Your task to perform on an android device: change your default location settings in chrome Image 0: 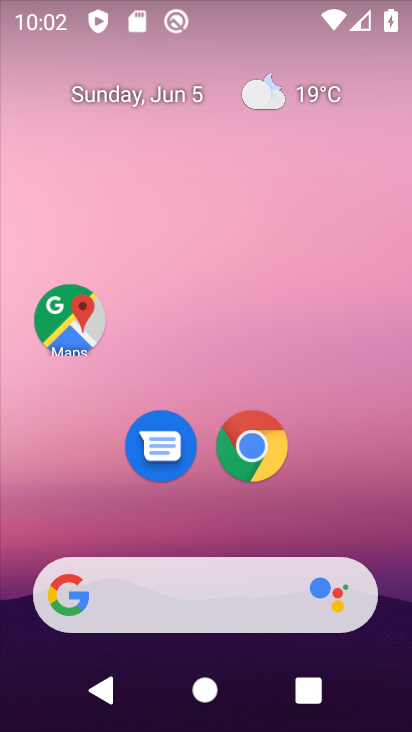
Step 0: click (243, 452)
Your task to perform on an android device: change your default location settings in chrome Image 1: 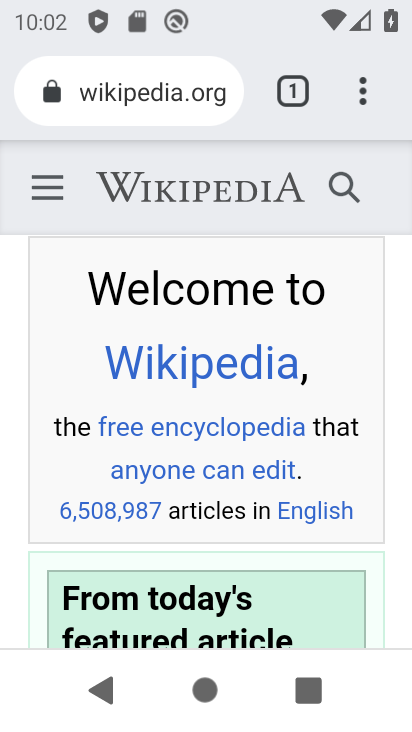
Step 1: click (362, 82)
Your task to perform on an android device: change your default location settings in chrome Image 2: 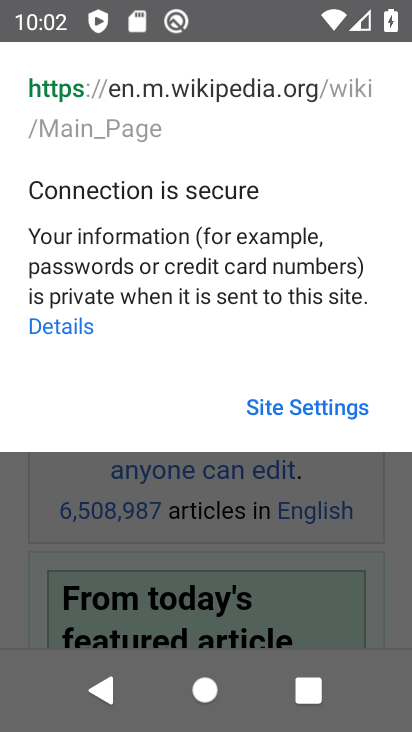
Step 2: click (172, 562)
Your task to perform on an android device: change your default location settings in chrome Image 3: 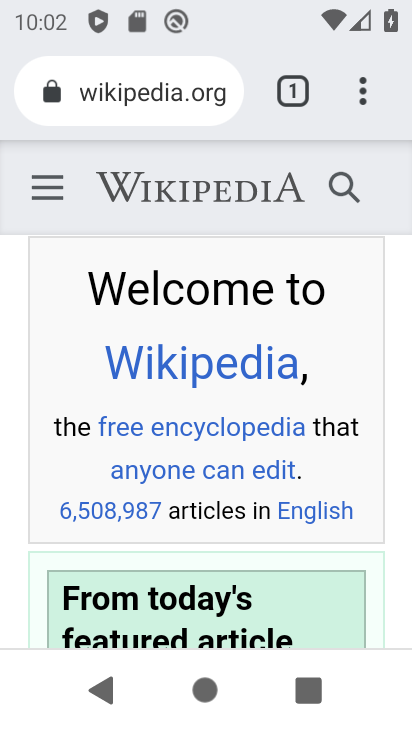
Step 3: click (353, 95)
Your task to perform on an android device: change your default location settings in chrome Image 4: 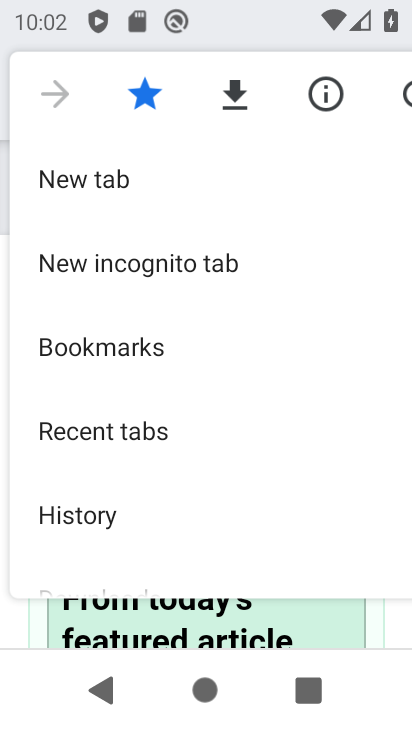
Step 4: drag from (170, 527) to (158, 191)
Your task to perform on an android device: change your default location settings in chrome Image 5: 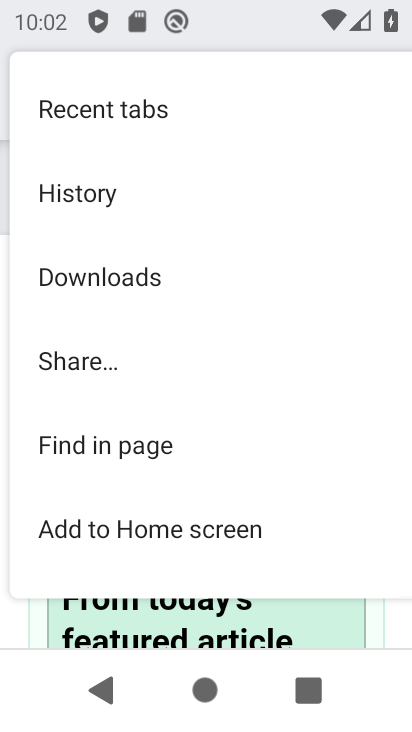
Step 5: drag from (121, 536) to (125, 143)
Your task to perform on an android device: change your default location settings in chrome Image 6: 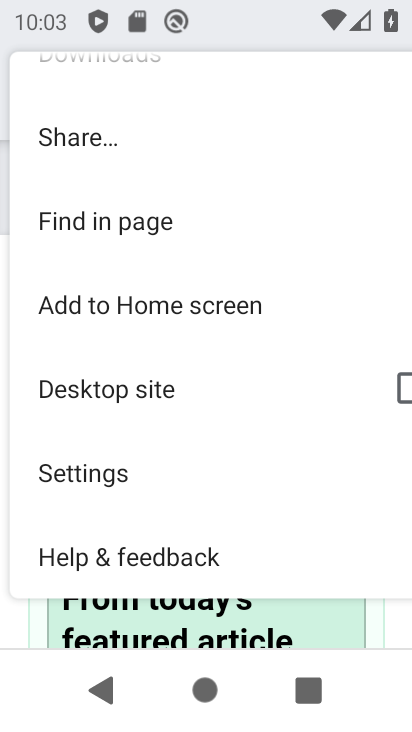
Step 6: click (116, 463)
Your task to perform on an android device: change your default location settings in chrome Image 7: 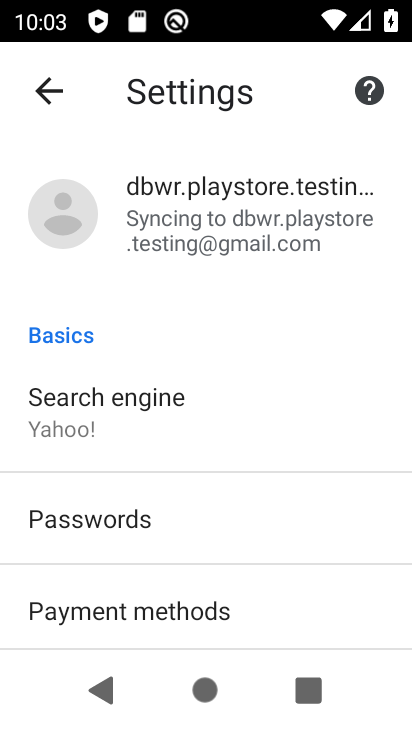
Step 7: drag from (135, 603) to (156, 133)
Your task to perform on an android device: change your default location settings in chrome Image 8: 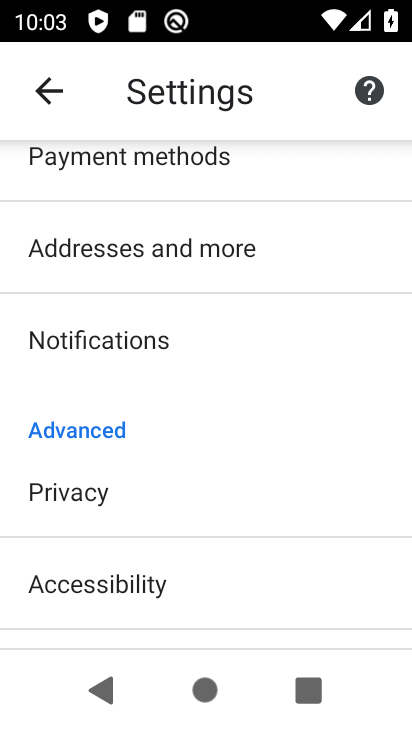
Step 8: drag from (113, 566) to (121, 39)
Your task to perform on an android device: change your default location settings in chrome Image 9: 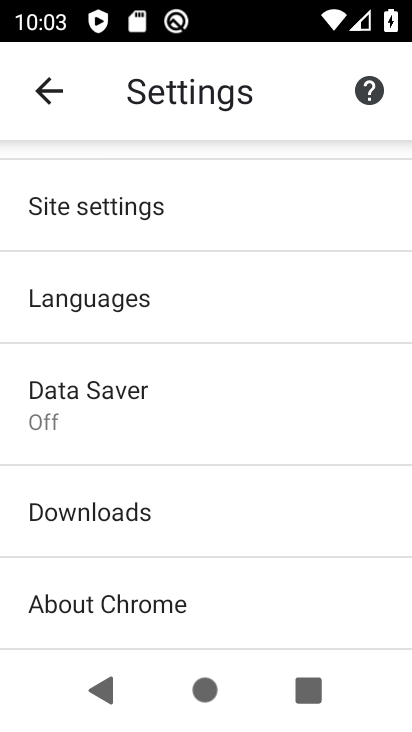
Step 9: click (143, 199)
Your task to perform on an android device: change your default location settings in chrome Image 10: 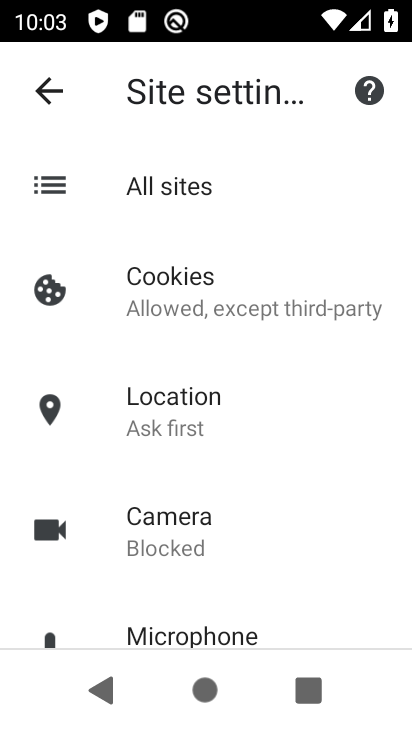
Step 10: drag from (187, 600) to (192, 332)
Your task to perform on an android device: change your default location settings in chrome Image 11: 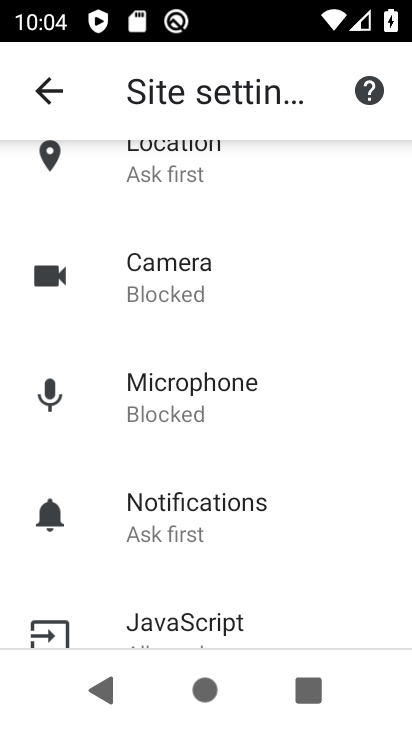
Step 11: drag from (236, 236) to (306, 475)
Your task to perform on an android device: change your default location settings in chrome Image 12: 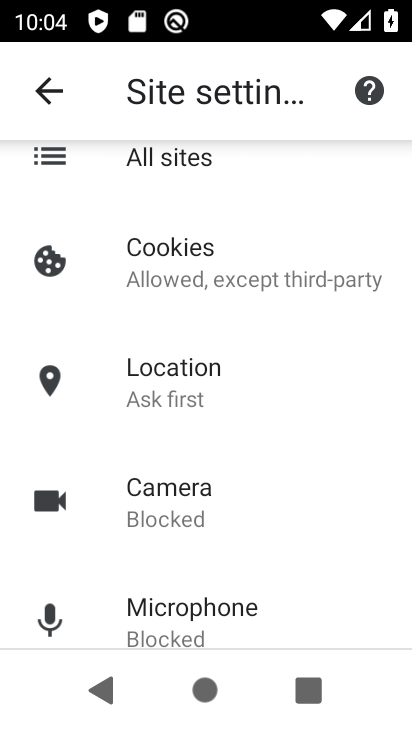
Step 12: click (140, 385)
Your task to perform on an android device: change your default location settings in chrome Image 13: 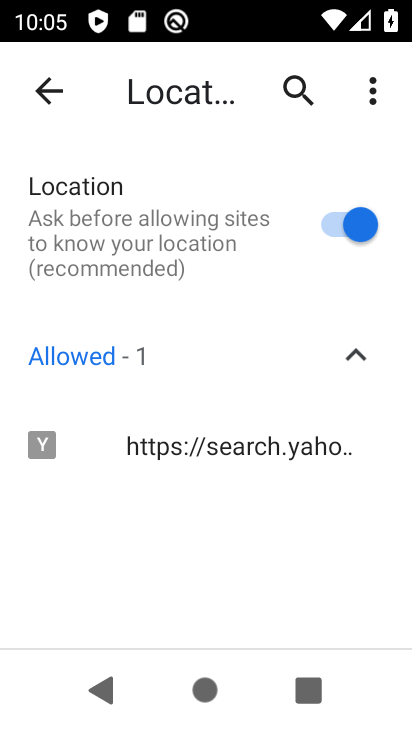
Step 13: click (337, 241)
Your task to perform on an android device: change your default location settings in chrome Image 14: 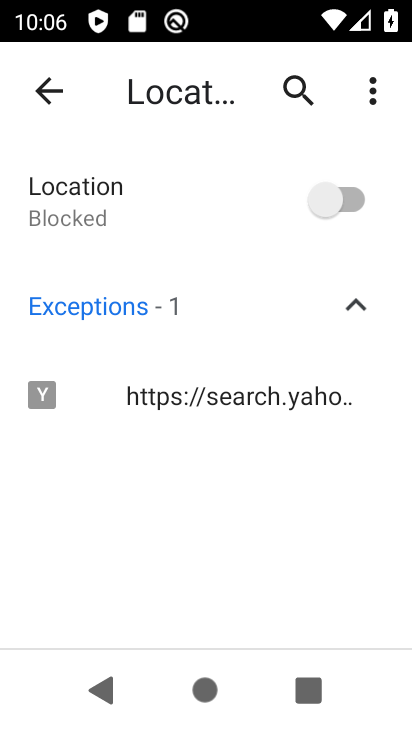
Step 14: task complete